Your task to perform on an android device: toggle pop-ups in chrome Image 0: 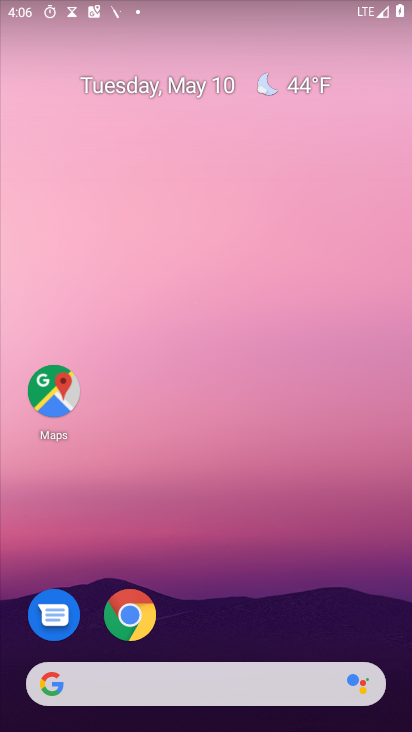
Step 0: drag from (160, 678) to (262, 55)
Your task to perform on an android device: toggle pop-ups in chrome Image 1: 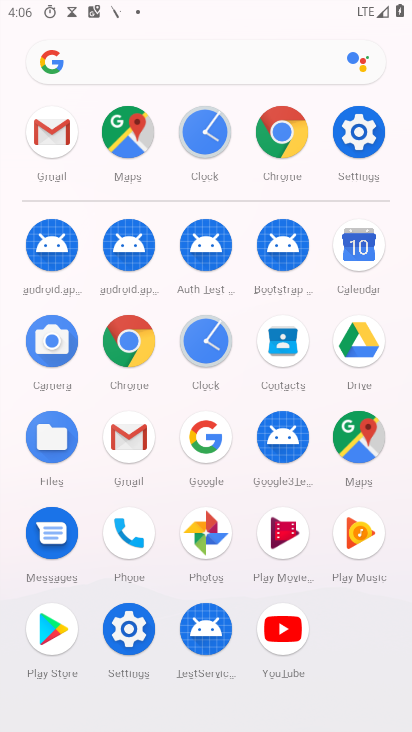
Step 1: click (117, 348)
Your task to perform on an android device: toggle pop-ups in chrome Image 2: 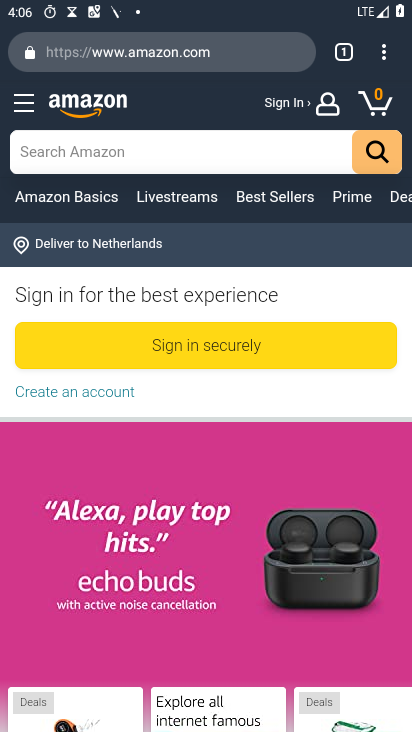
Step 2: drag from (387, 38) to (227, 638)
Your task to perform on an android device: toggle pop-ups in chrome Image 3: 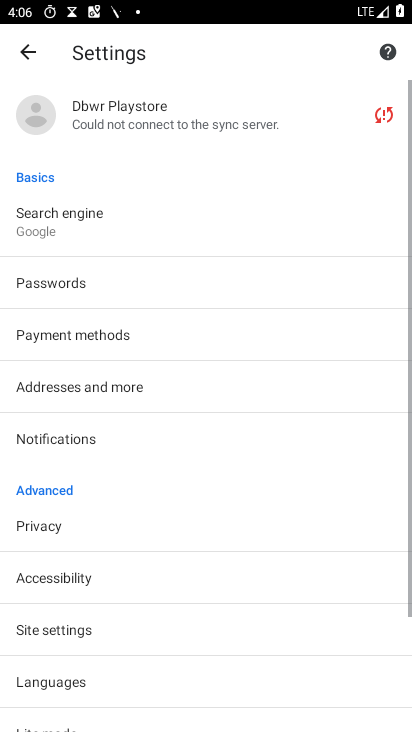
Step 3: drag from (204, 613) to (180, 191)
Your task to perform on an android device: toggle pop-ups in chrome Image 4: 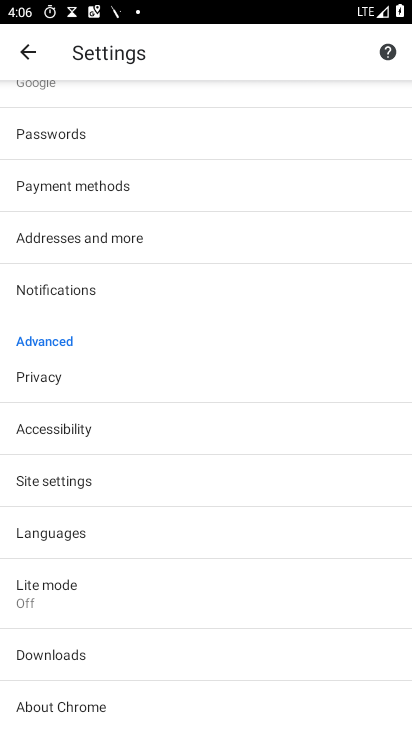
Step 4: click (98, 491)
Your task to perform on an android device: toggle pop-ups in chrome Image 5: 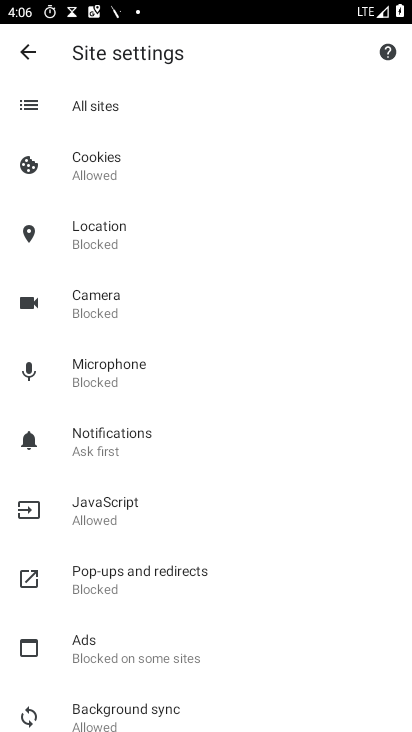
Step 5: click (151, 580)
Your task to perform on an android device: toggle pop-ups in chrome Image 6: 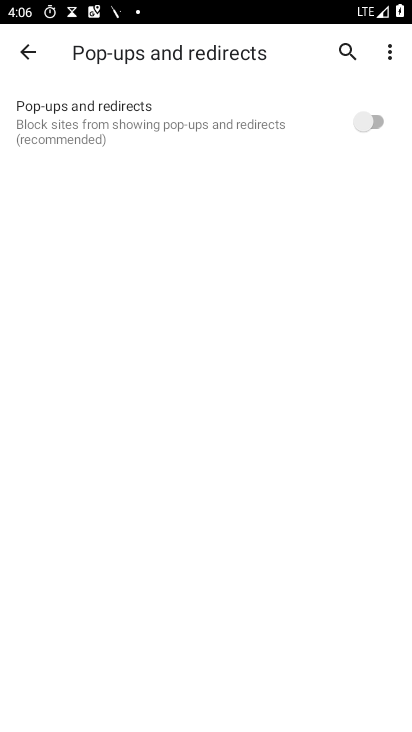
Step 6: click (368, 120)
Your task to perform on an android device: toggle pop-ups in chrome Image 7: 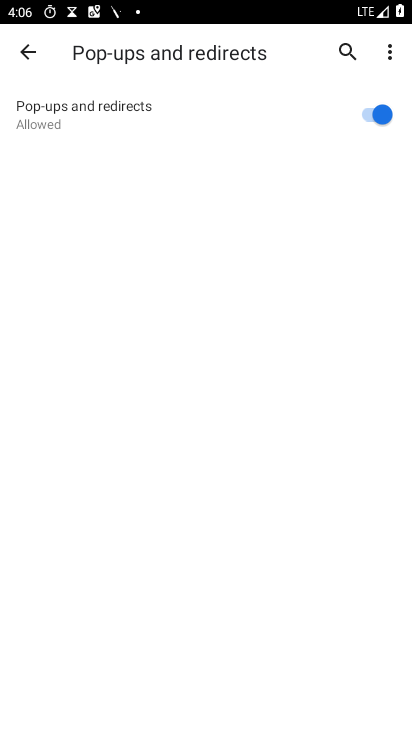
Step 7: task complete